Your task to perform on an android device: check android version Image 0: 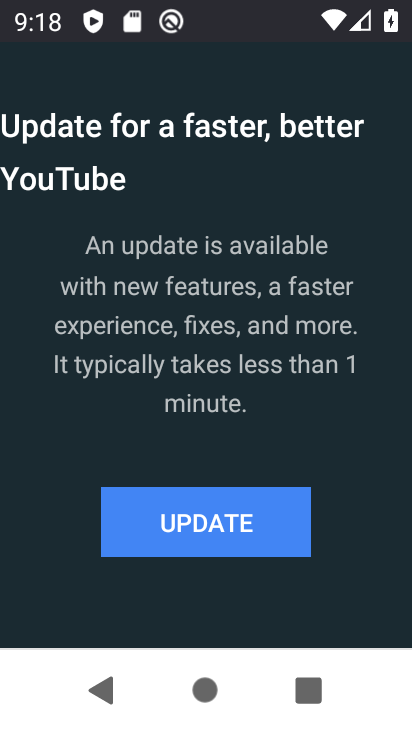
Step 0: press back button
Your task to perform on an android device: check android version Image 1: 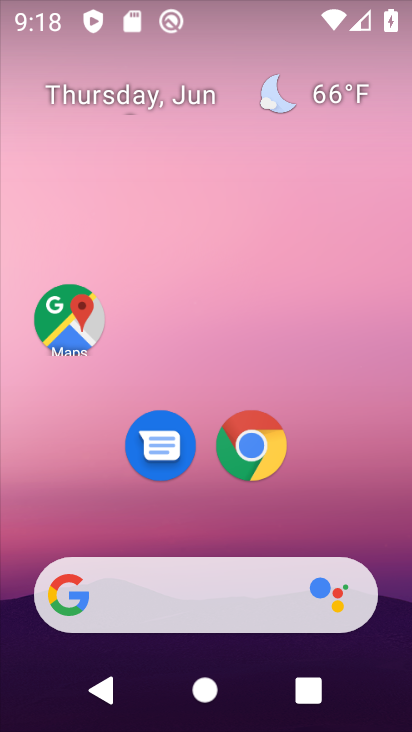
Step 1: drag from (247, 540) to (209, 5)
Your task to perform on an android device: check android version Image 2: 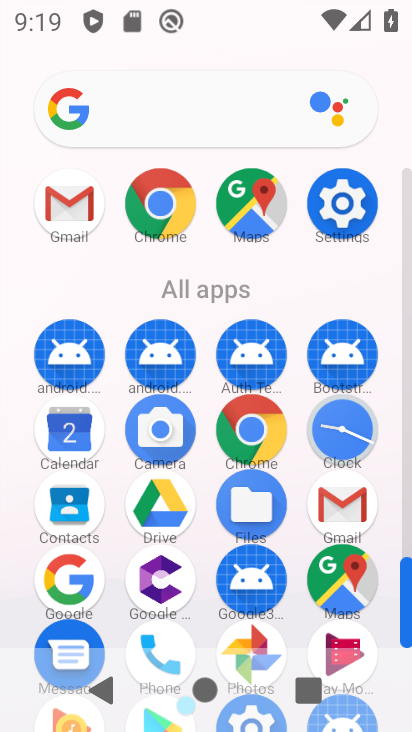
Step 2: click (341, 198)
Your task to perform on an android device: check android version Image 3: 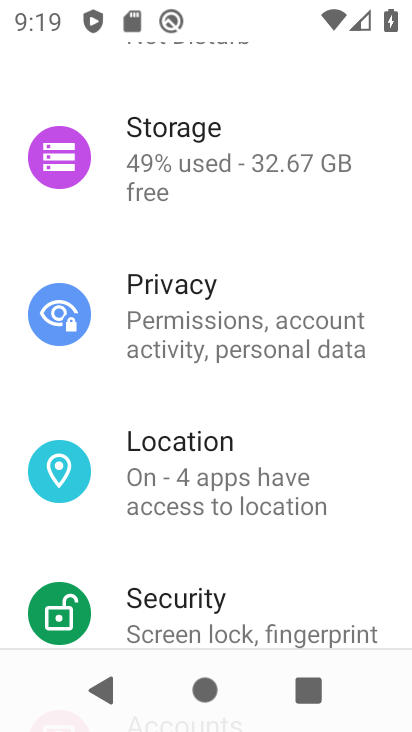
Step 3: drag from (196, 576) to (180, 375)
Your task to perform on an android device: check android version Image 4: 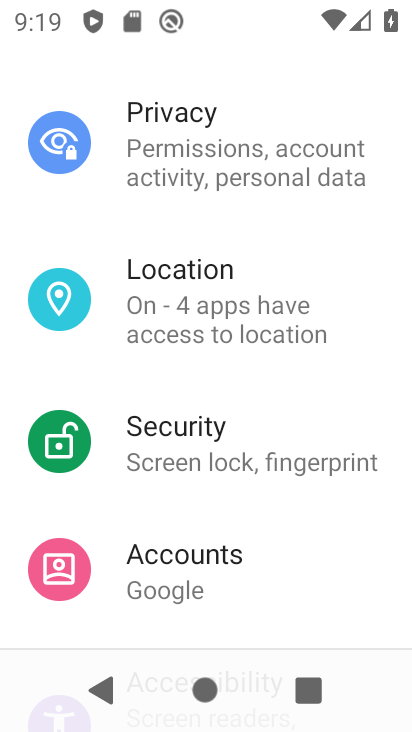
Step 4: drag from (229, 621) to (219, 387)
Your task to perform on an android device: check android version Image 5: 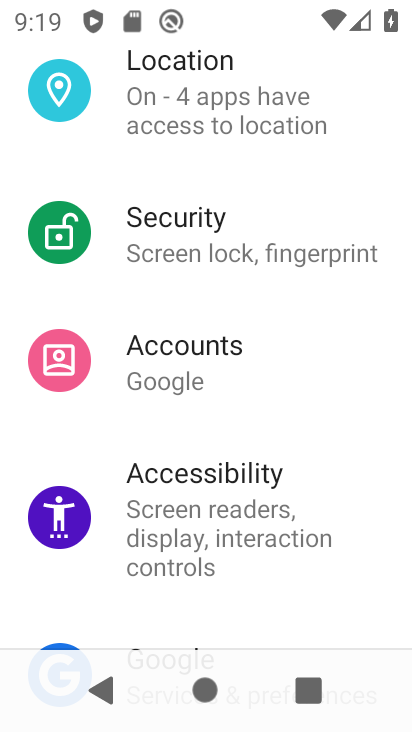
Step 5: drag from (216, 571) to (210, 328)
Your task to perform on an android device: check android version Image 6: 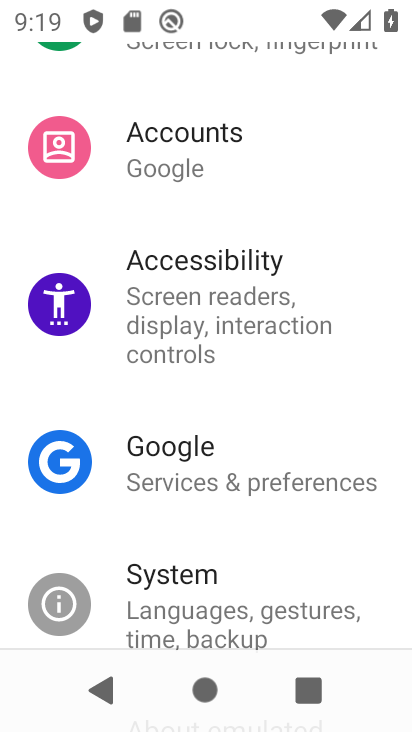
Step 6: drag from (223, 595) to (221, 397)
Your task to perform on an android device: check android version Image 7: 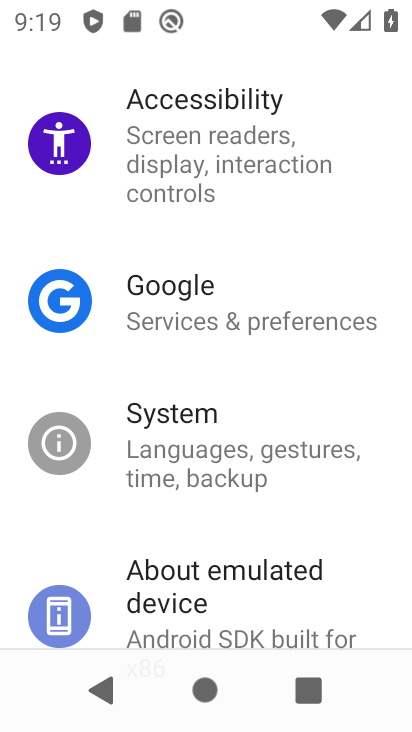
Step 7: click (213, 629)
Your task to perform on an android device: check android version Image 8: 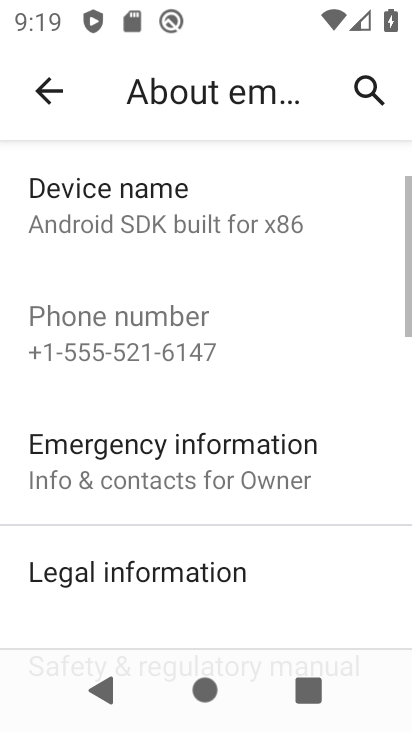
Step 8: drag from (155, 615) to (147, 199)
Your task to perform on an android device: check android version Image 9: 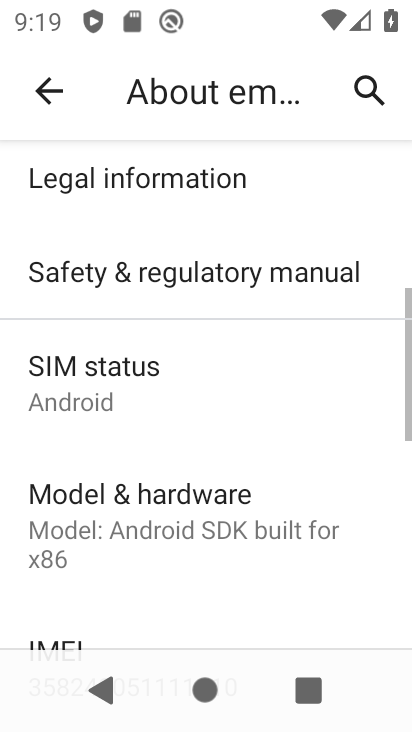
Step 9: drag from (144, 585) to (131, 290)
Your task to perform on an android device: check android version Image 10: 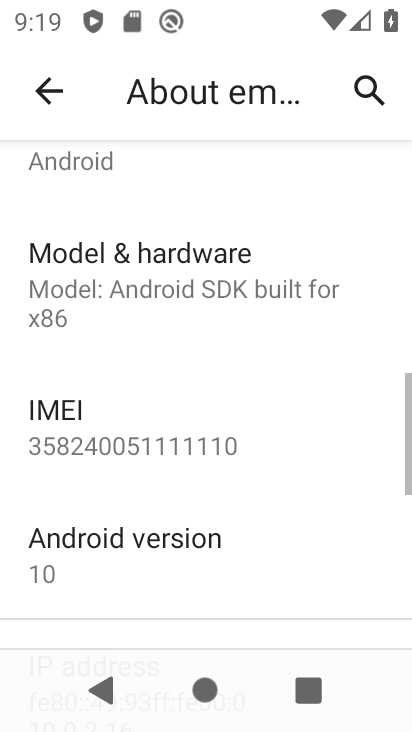
Step 10: click (150, 541)
Your task to perform on an android device: check android version Image 11: 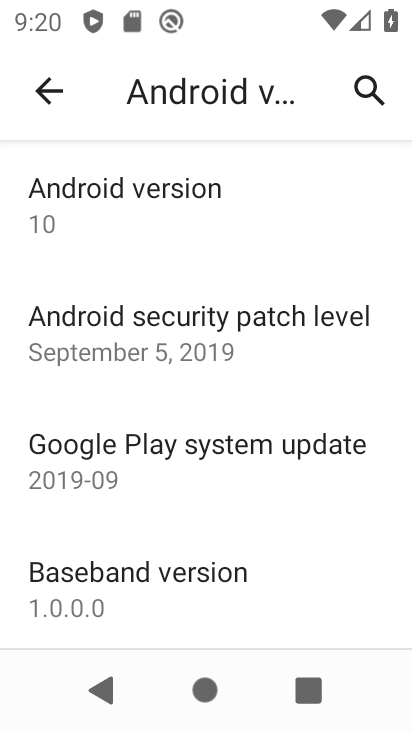
Step 11: click (81, 194)
Your task to perform on an android device: check android version Image 12: 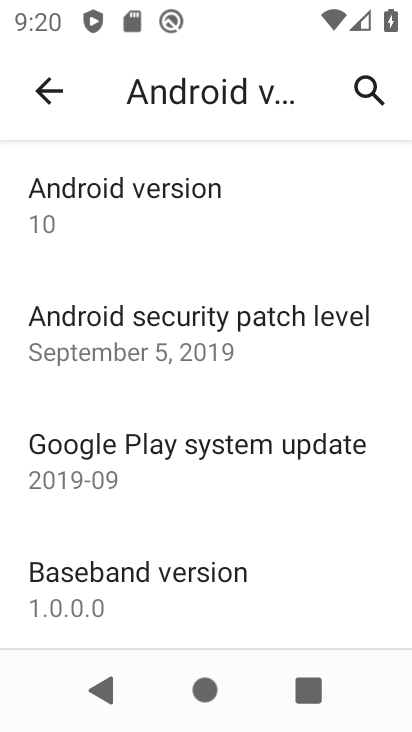
Step 12: task complete